Your task to perform on an android device: Show me productivity apps on the Play Store Image 0: 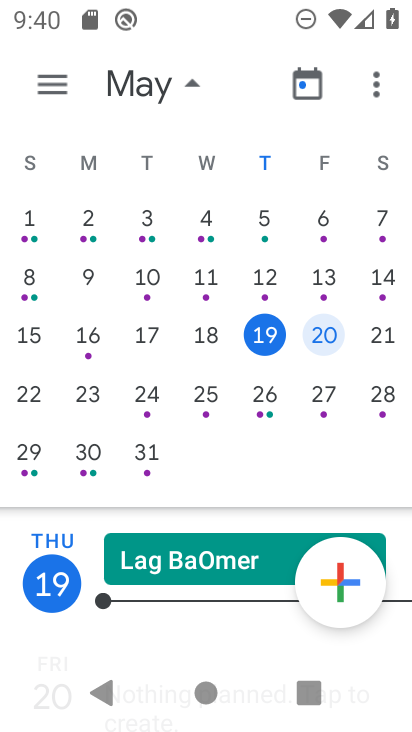
Step 0: press home button
Your task to perform on an android device: Show me productivity apps on the Play Store Image 1: 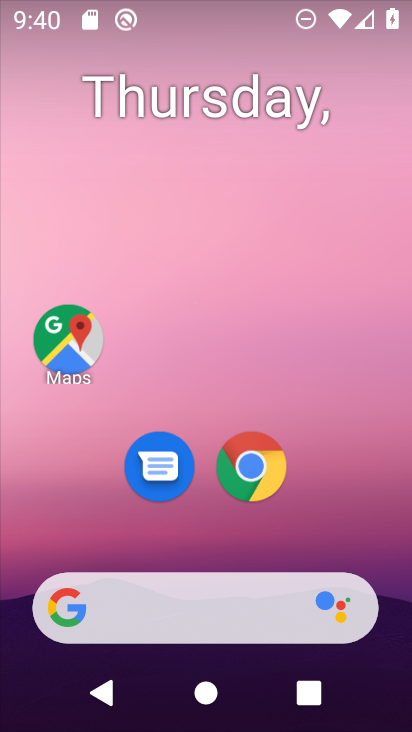
Step 1: drag from (236, 539) to (274, 131)
Your task to perform on an android device: Show me productivity apps on the Play Store Image 2: 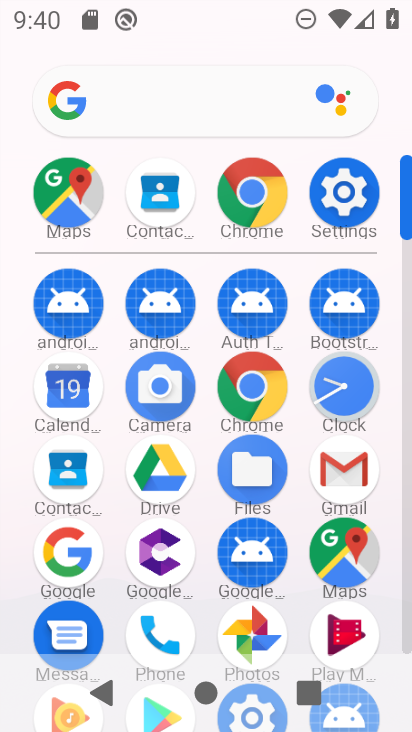
Step 2: drag from (304, 652) to (289, 438)
Your task to perform on an android device: Show me productivity apps on the Play Store Image 3: 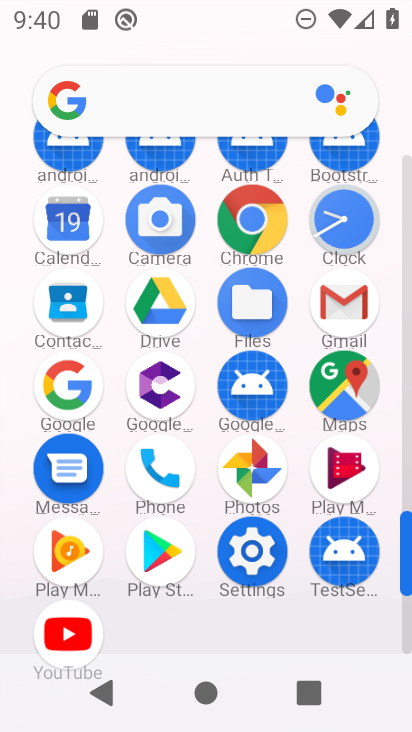
Step 3: click (157, 561)
Your task to perform on an android device: Show me productivity apps on the Play Store Image 4: 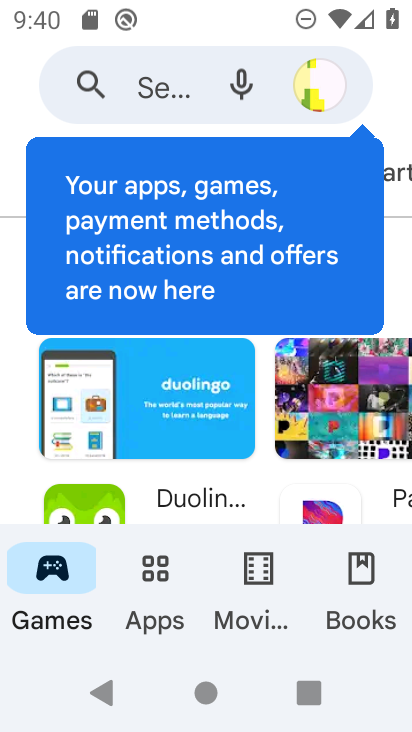
Step 4: click (141, 577)
Your task to perform on an android device: Show me productivity apps on the Play Store Image 5: 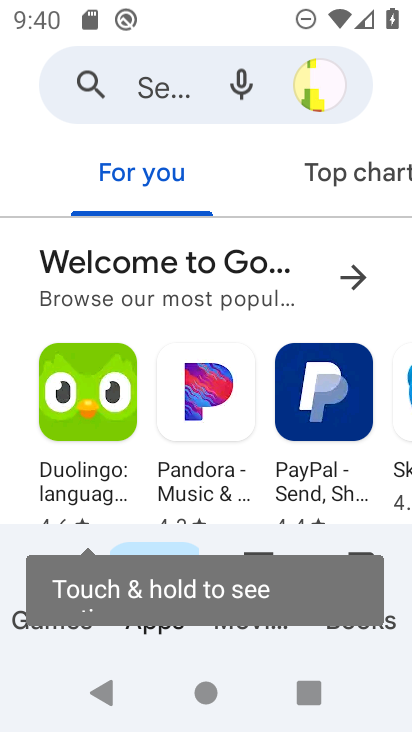
Step 5: drag from (348, 527) to (362, 234)
Your task to perform on an android device: Show me productivity apps on the Play Store Image 6: 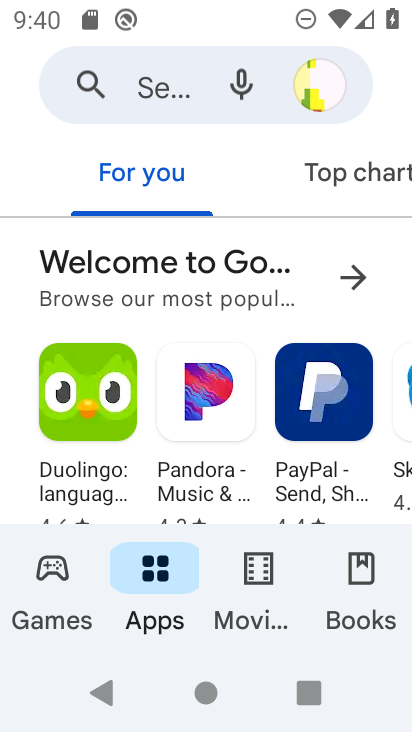
Step 6: drag from (243, 481) to (239, 189)
Your task to perform on an android device: Show me productivity apps on the Play Store Image 7: 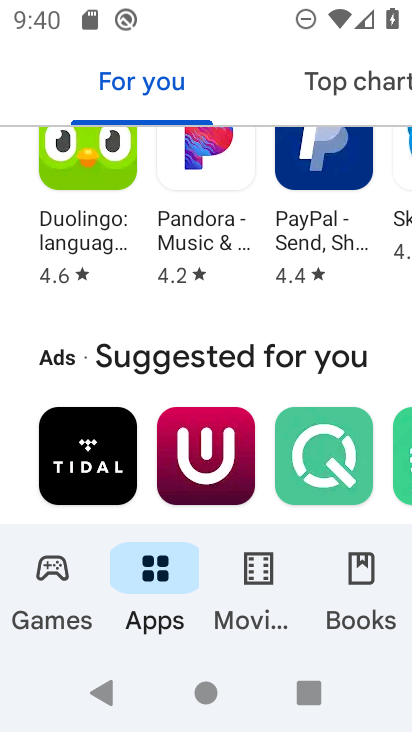
Step 7: drag from (243, 503) to (212, 156)
Your task to perform on an android device: Show me productivity apps on the Play Store Image 8: 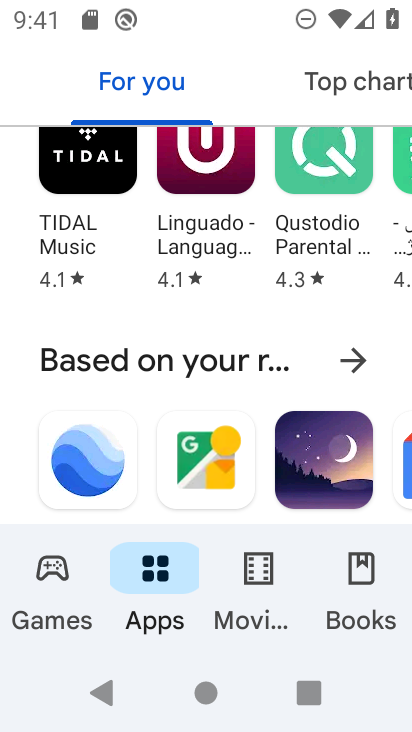
Step 8: drag from (249, 483) to (234, 215)
Your task to perform on an android device: Show me productivity apps on the Play Store Image 9: 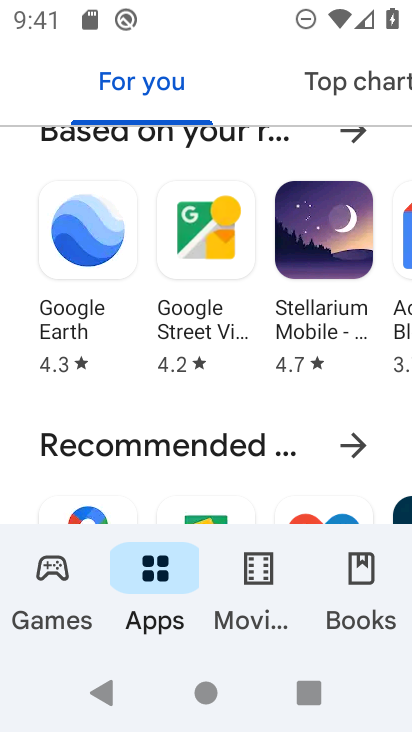
Step 9: drag from (295, 497) to (291, 372)
Your task to perform on an android device: Show me productivity apps on the Play Store Image 10: 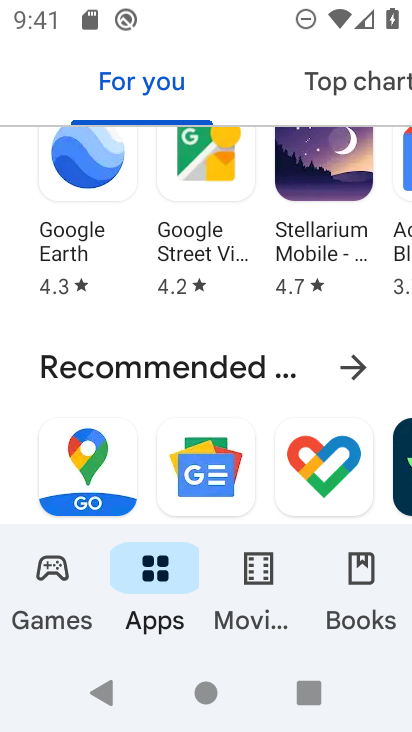
Step 10: drag from (258, 425) to (252, 110)
Your task to perform on an android device: Show me productivity apps on the Play Store Image 11: 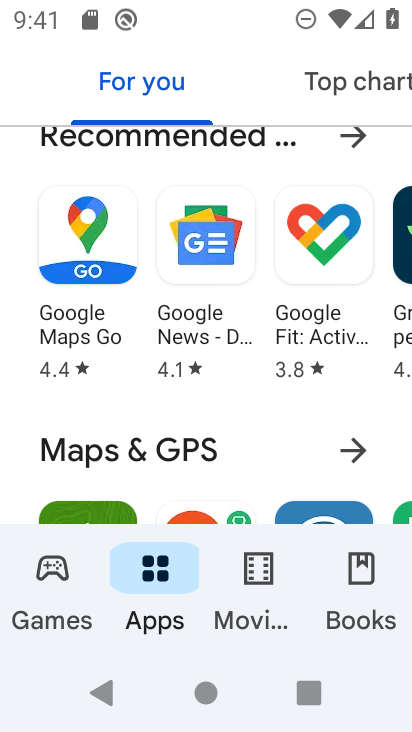
Step 11: drag from (259, 478) to (233, 176)
Your task to perform on an android device: Show me productivity apps on the Play Store Image 12: 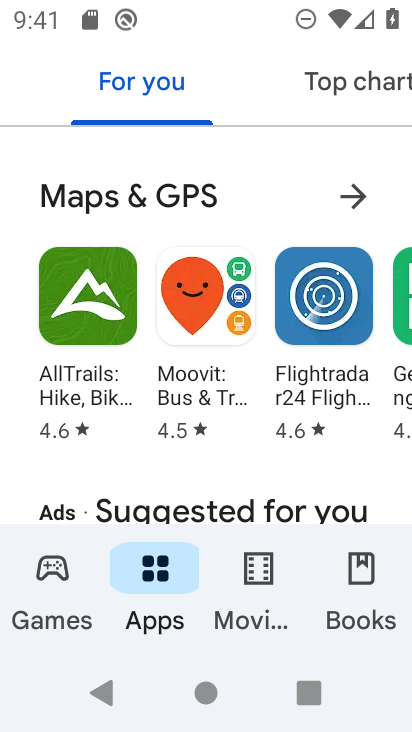
Step 12: drag from (310, 474) to (289, 133)
Your task to perform on an android device: Show me productivity apps on the Play Store Image 13: 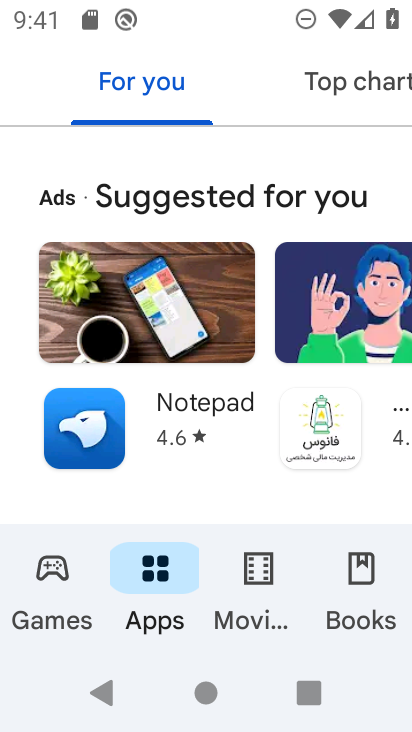
Step 13: drag from (253, 460) to (296, 40)
Your task to perform on an android device: Show me productivity apps on the Play Store Image 14: 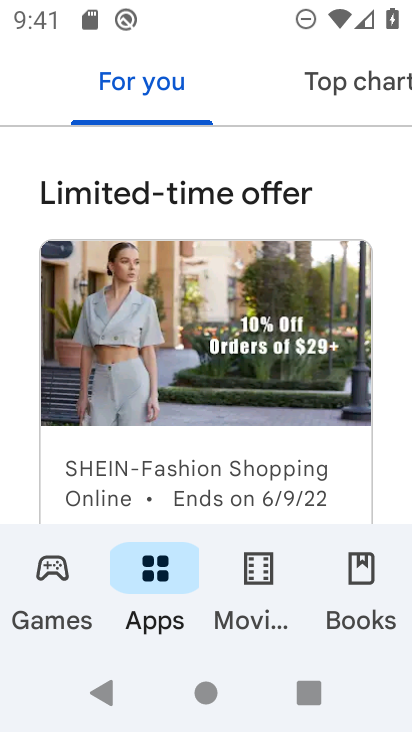
Step 14: drag from (241, 454) to (296, 102)
Your task to perform on an android device: Show me productivity apps on the Play Store Image 15: 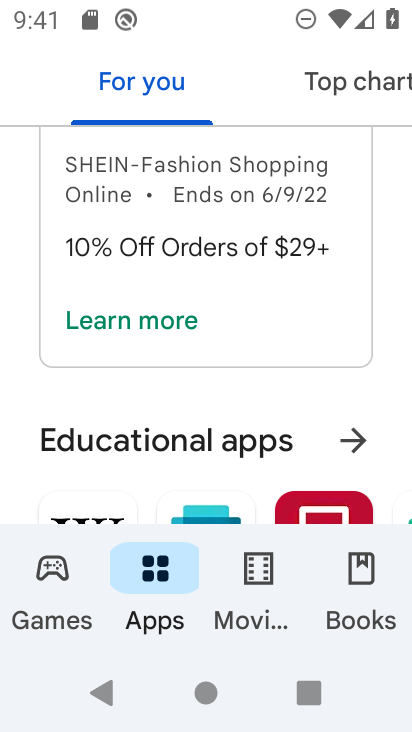
Step 15: drag from (325, 450) to (331, 172)
Your task to perform on an android device: Show me productivity apps on the Play Store Image 16: 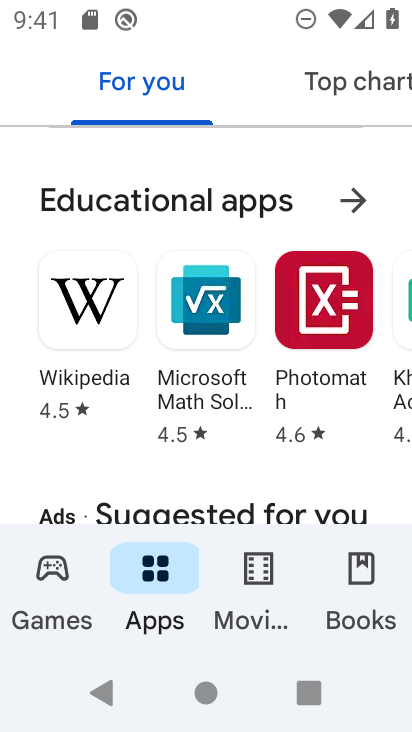
Step 16: drag from (275, 477) to (317, 114)
Your task to perform on an android device: Show me productivity apps on the Play Store Image 17: 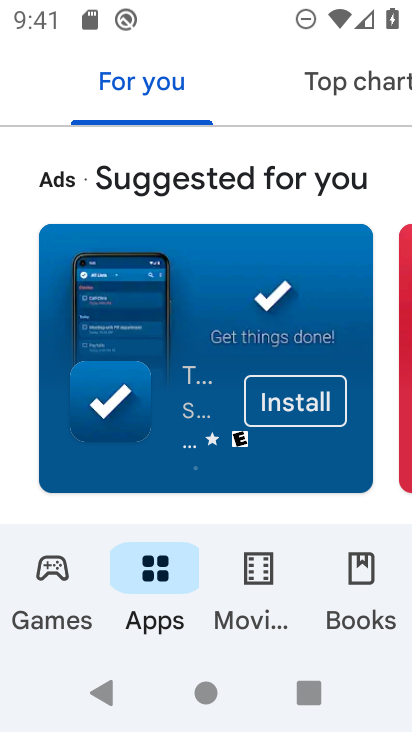
Step 17: drag from (348, 477) to (366, 210)
Your task to perform on an android device: Show me productivity apps on the Play Store Image 18: 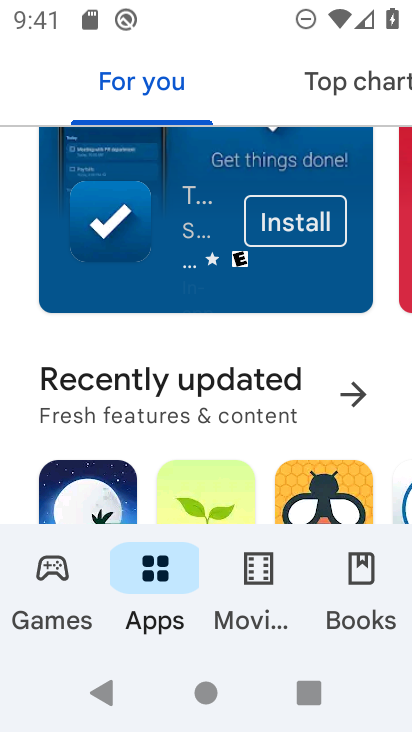
Step 18: drag from (370, 468) to (381, 141)
Your task to perform on an android device: Show me productivity apps on the Play Store Image 19: 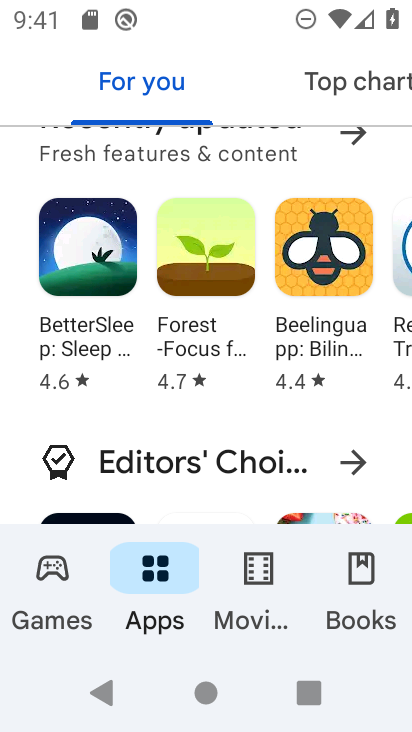
Step 19: drag from (268, 470) to (306, 100)
Your task to perform on an android device: Show me productivity apps on the Play Store Image 20: 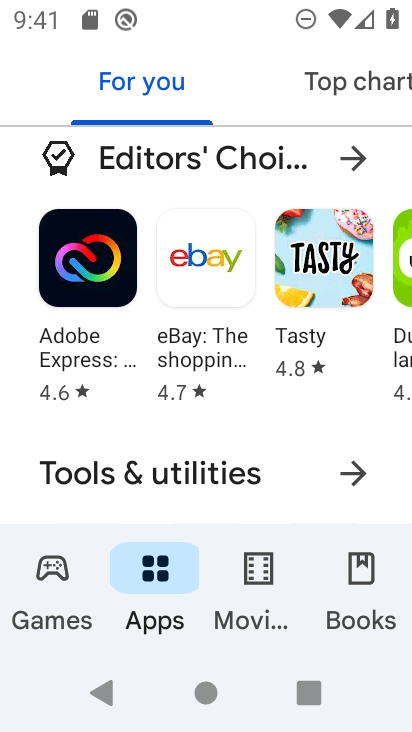
Step 20: drag from (226, 503) to (308, 111)
Your task to perform on an android device: Show me productivity apps on the Play Store Image 21: 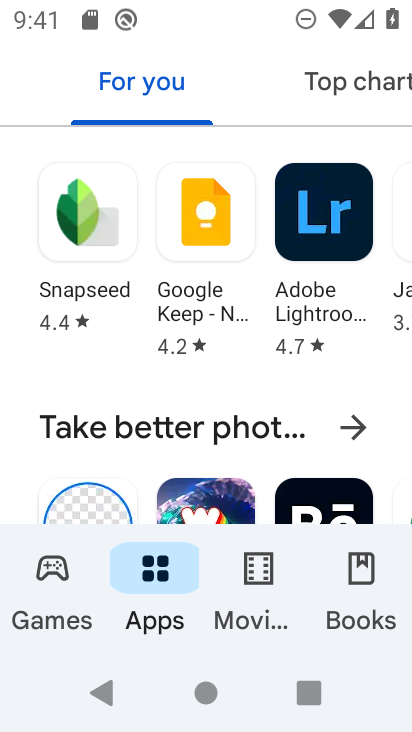
Step 21: drag from (241, 456) to (254, 125)
Your task to perform on an android device: Show me productivity apps on the Play Store Image 22: 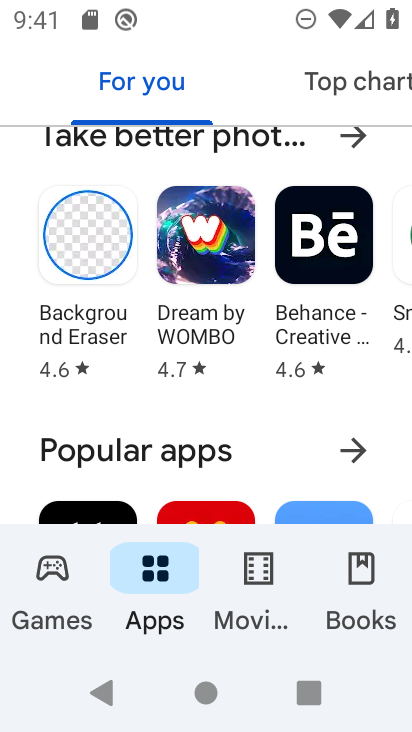
Step 22: drag from (189, 463) to (218, 298)
Your task to perform on an android device: Show me productivity apps on the Play Store Image 23: 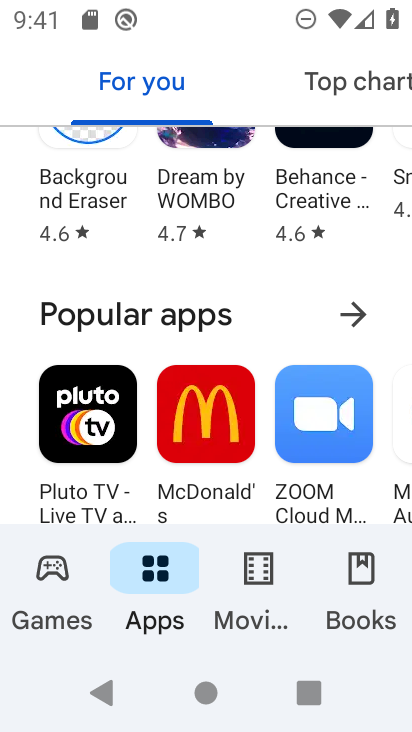
Step 23: drag from (240, 535) to (251, 312)
Your task to perform on an android device: Show me productivity apps on the Play Store Image 24: 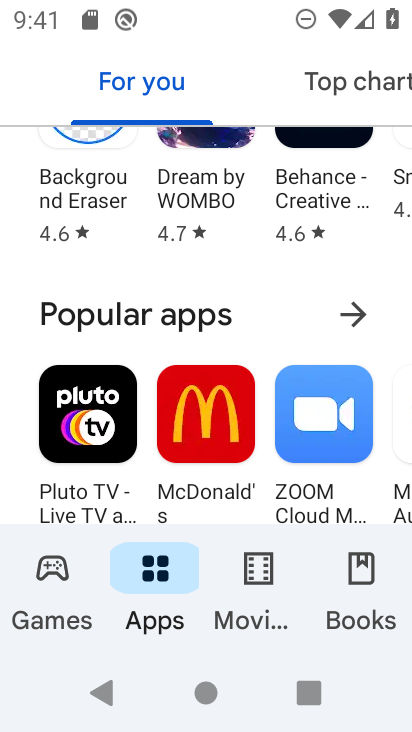
Step 24: drag from (201, 491) to (211, 77)
Your task to perform on an android device: Show me productivity apps on the Play Store Image 25: 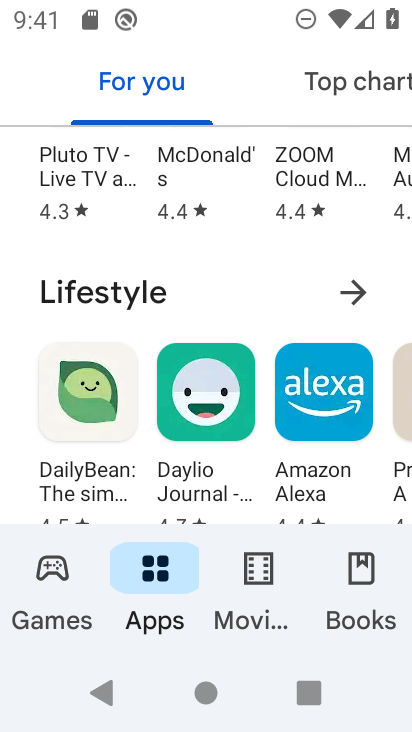
Step 25: drag from (211, 461) to (208, 115)
Your task to perform on an android device: Show me productivity apps on the Play Store Image 26: 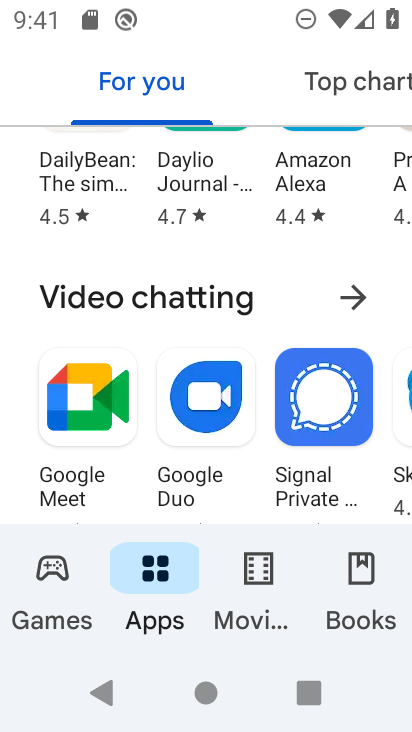
Step 26: drag from (192, 457) to (213, 130)
Your task to perform on an android device: Show me productivity apps on the Play Store Image 27: 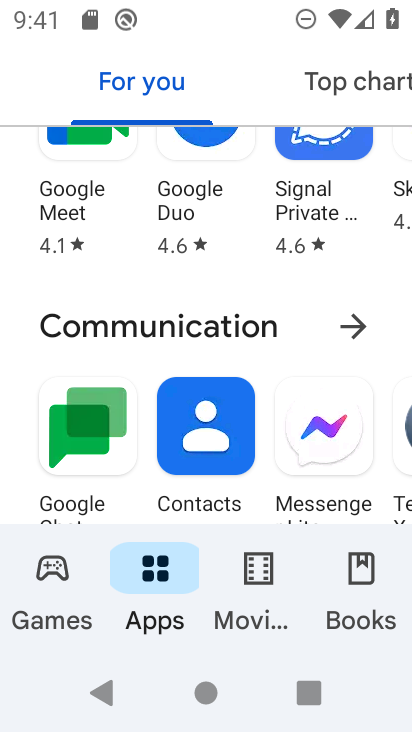
Step 27: drag from (314, 511) to (304, 242)
Your task to perform on an android device: Show me productivity apps on the Play Store Image 28: 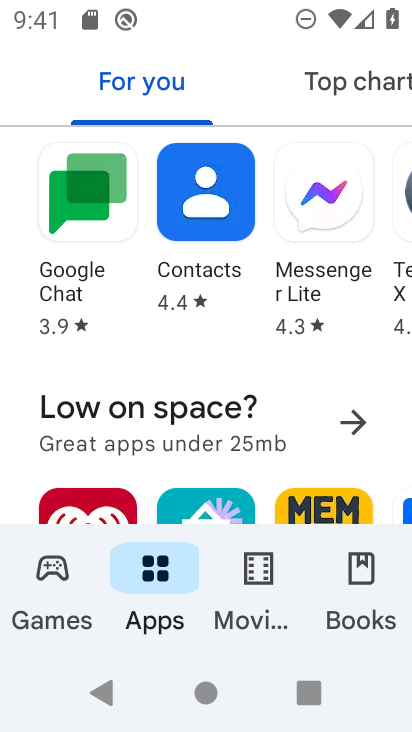
Step 28: drag from (280, 474) to (313, 164)
Your task to perform on an android device: Show me productivity apps on the Play Store Image 29: 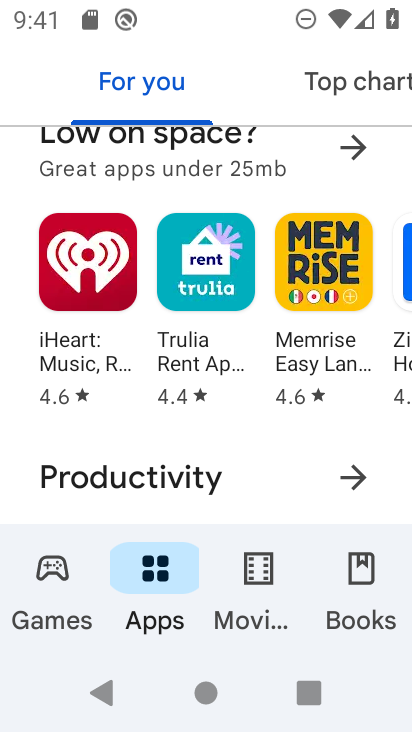
Step 29: click (333, 474)
Your task to perform on an android device: Show me productivity apps on the Play Store Image 30: 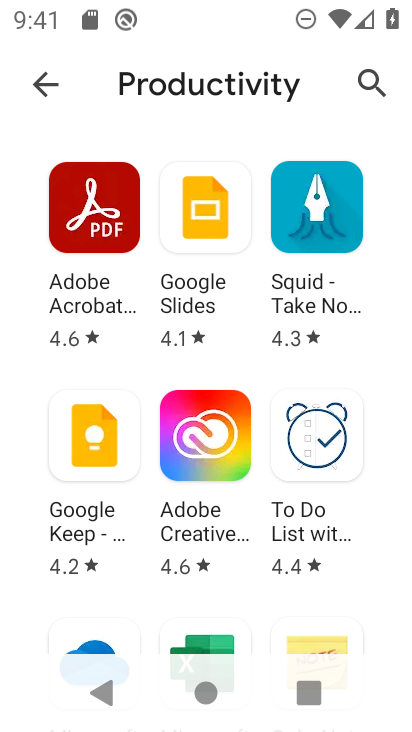
Step 30: task complete